Your task to perform on an android device: What's the weather going to be this weekend? Image 0: 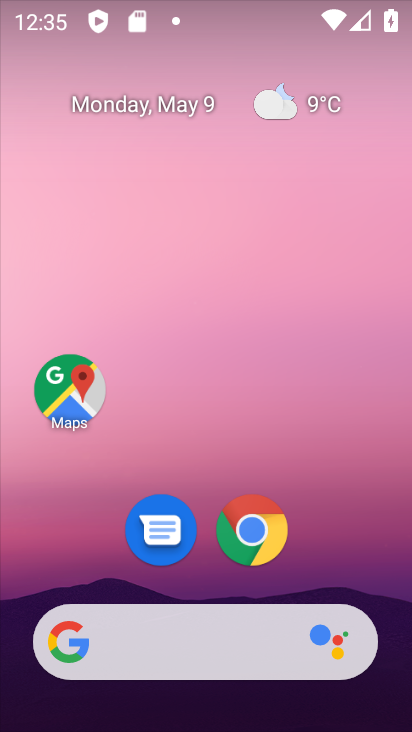
Step 0: drag from (297, 561) to (325, 292)
Your task to perform on an android device: What's the weather going to be this weekend? Image 1: 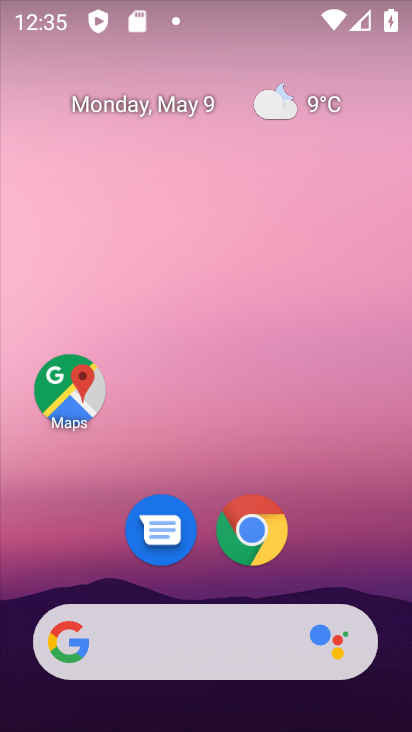
Step 1: drag from (312, 568) to (332, 222)
Your task to perform on an android device: What's the weather going to be this weekend? Image 2: 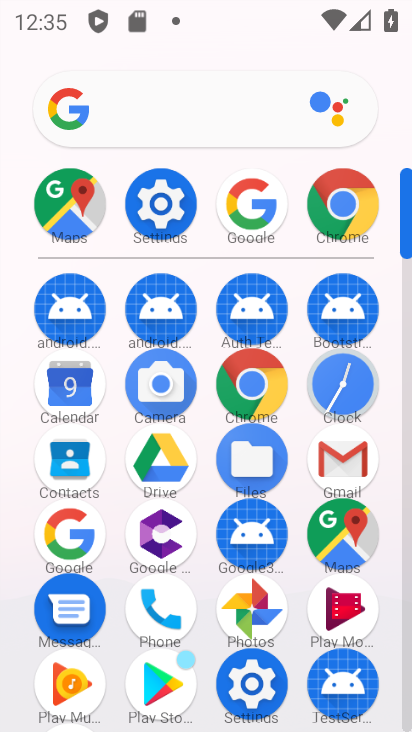
Step 2: click (255, 385)
Your task to perform on an android device: What's the weather going to be this weekend? Image 3: 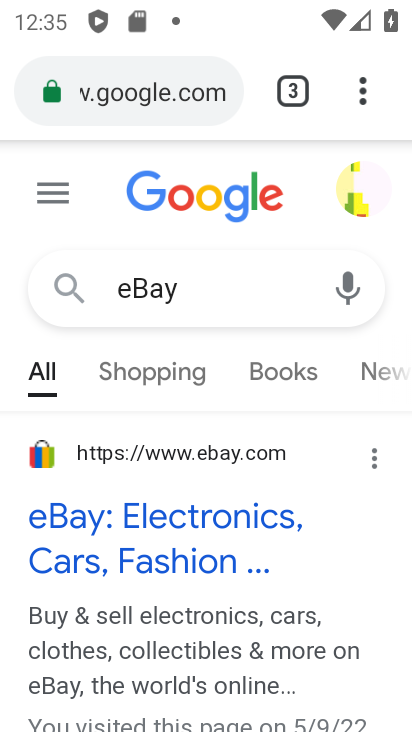
Step 3: click (340, 101)
Your task to perform on an android device: What's the weather going to be this weekend? Image 4: 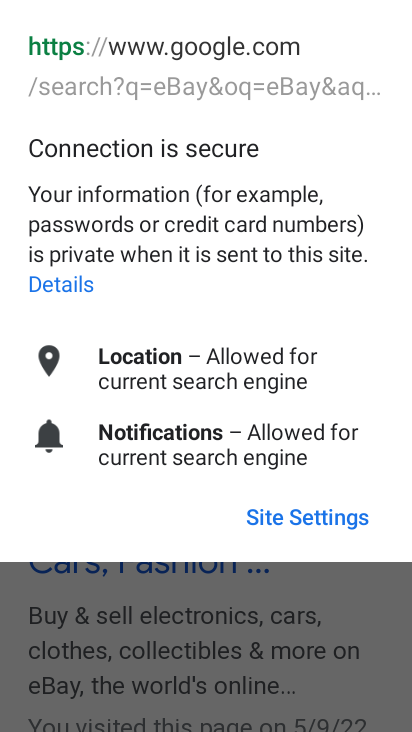
Step 4: press back button
Your task to perform on an android device: What's the weather going to be this weekend? Image 5: 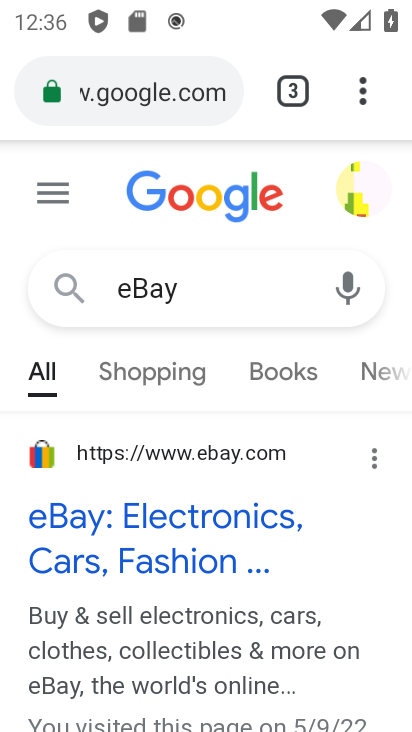
Step 5: click (335, 75)
Your task to perform on an android device: What's the weather going to be this weekend? Image 6: 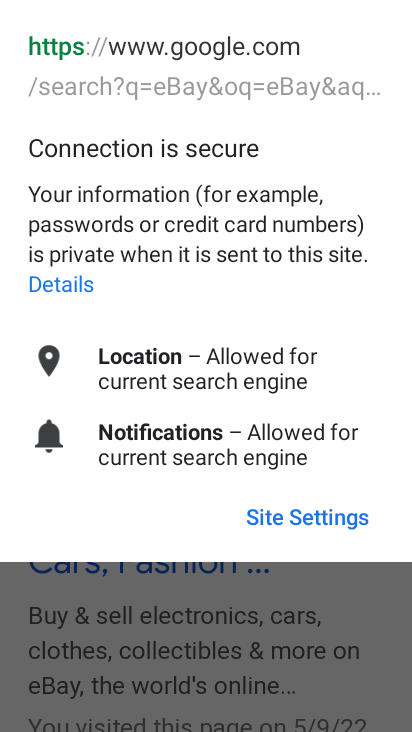
Step 6: press back button
Your task to perform on an android device: What's the weather going to be this weekend? Image 7: 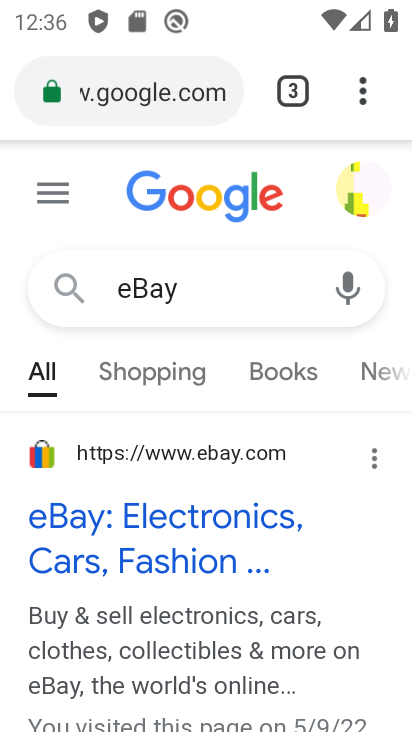
Step 7: click (324, 108)
Your task to perform on an android device: What's the weather going to be this weekend? Image 8: 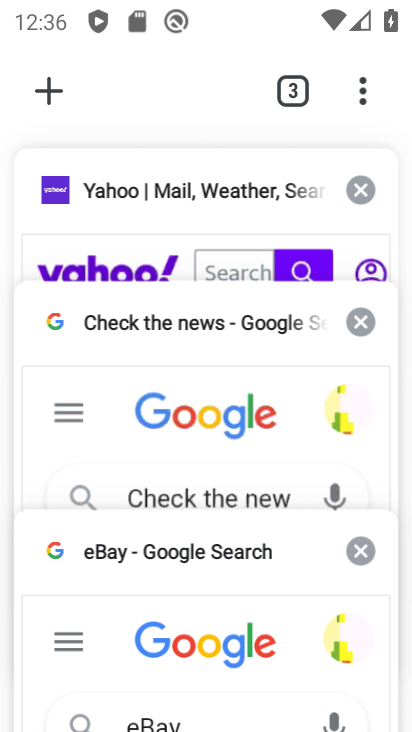
Step 8: click (45, 95)
Your task to perform on an android device: What's the weather going to be this weekend? Image 9: 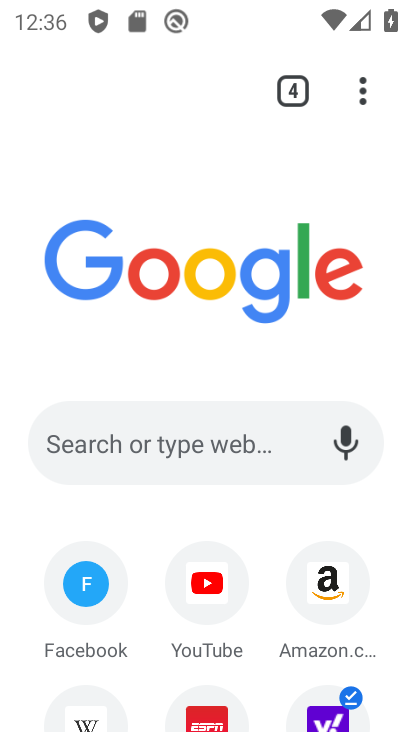
Step 9: click (200, 425)
Your task to perform on an android device: What's the weather going to be this weekend? Image 10: 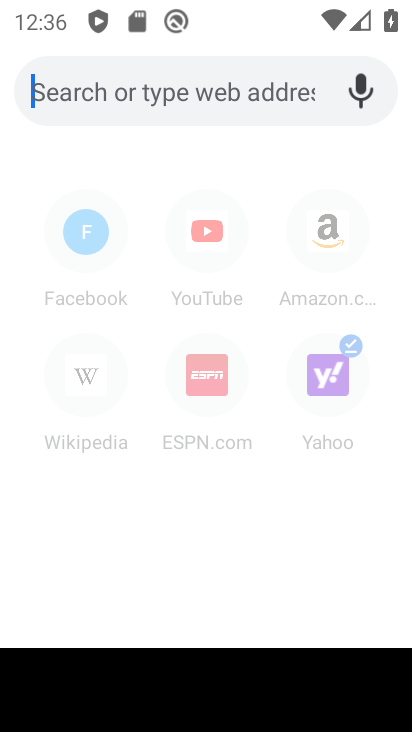
Step 10: click (233, 83)
Your task to perform on an android device: What's the weather going to be this weekend? Image 11: 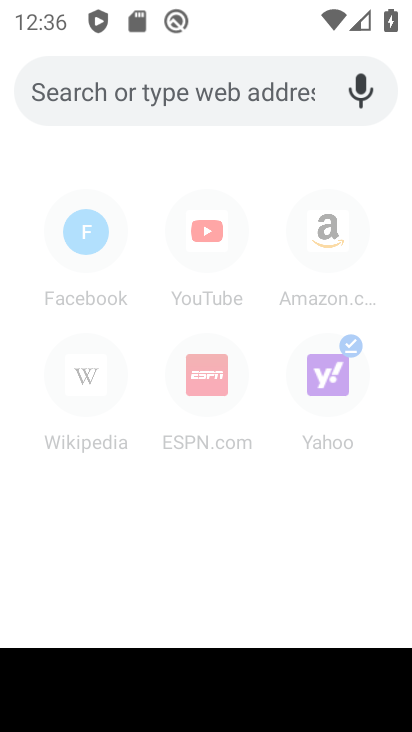
Step 11: type "What's the weather going to be this weekend?"
Your task to perform on an android device: What's the weather going to be this weekend? Image 12: 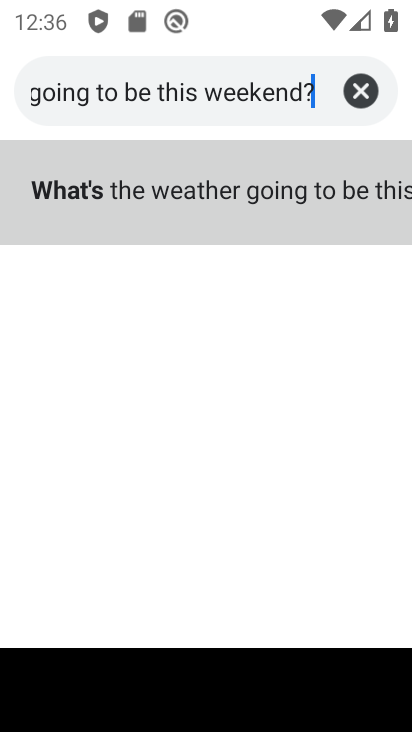
Step 12: click (173, 187)
Your task to perform on an android device: What's the weather going to be this weekend? Image 13: 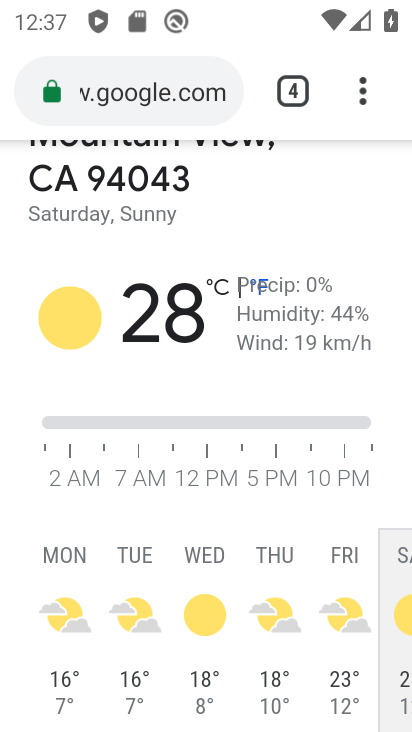
Step 13: task complete